Your task to perform on an android device: Open Yahoo.com Image 0: 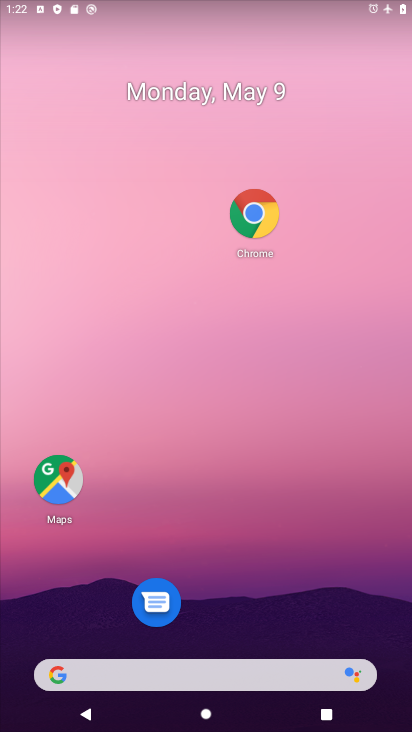
Step 0: click (259, 225)
Your task to perform on an android device: Open Yahoo.com Image 1: 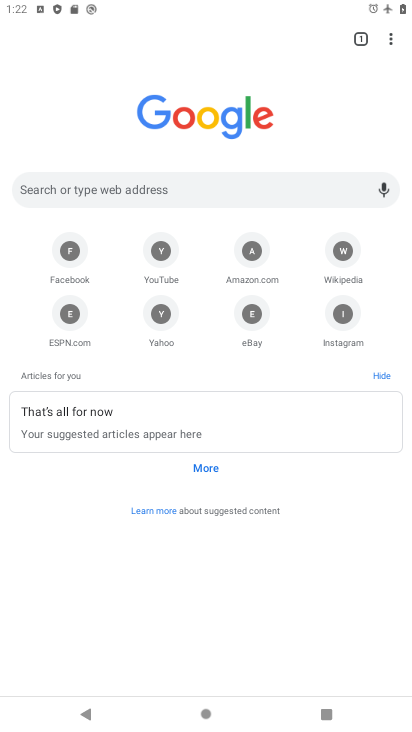
Step 1: click (221, 182)
Your task to perform on an android device: Open Yahoo.com Image 2: 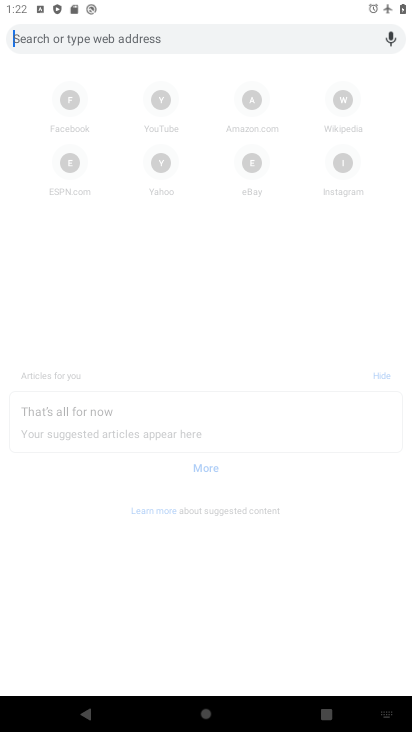
Step 2: type "yahoo.com"
Your task to perform on an android device: Open Yahoo.com Image 3: 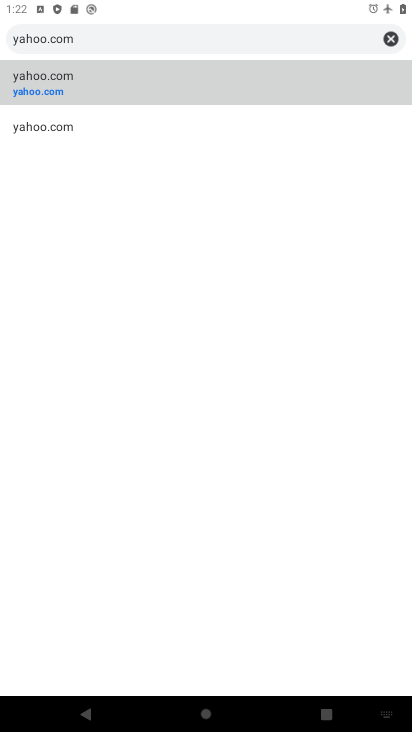
Step 3: task complete